Your task to perform on an android device: Search for Italian restaurants on Maps Image 0: 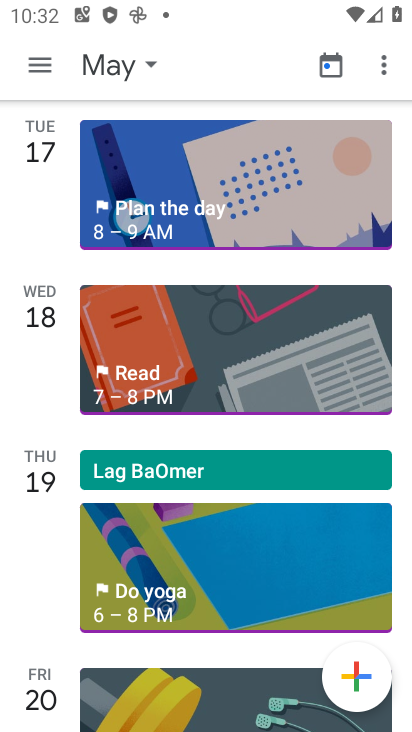
Step 0: press home button
Your task to perform on an android device: Search for Italian restaurants on Maps Image 1: 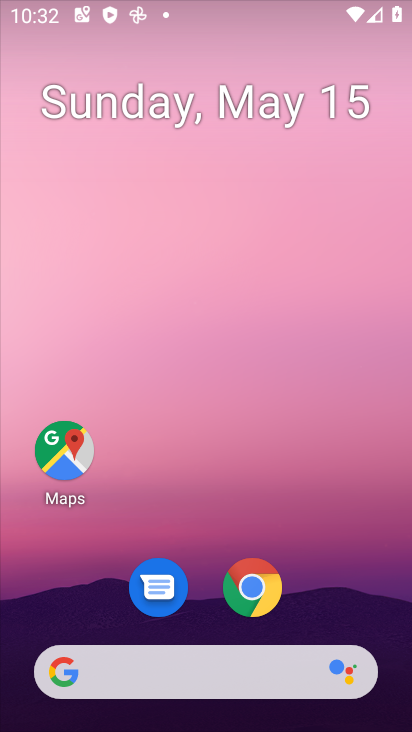
Step 1: drag from (384, 688) to (310, 75)
Your task to perform on an android device: Search for Italian restaurants on Maps Image 2: 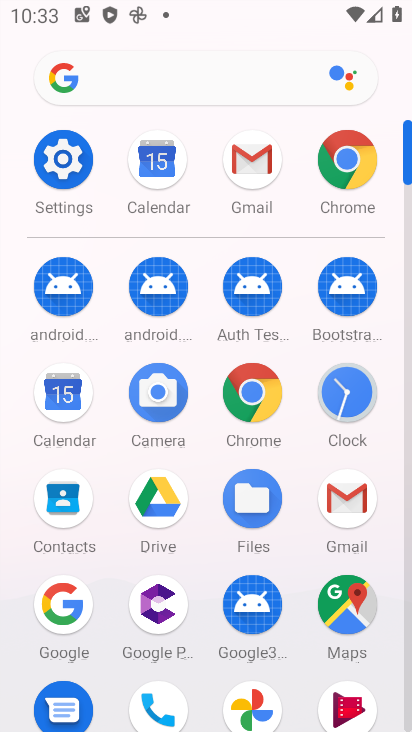
Step 2: click (335, 585)
Your task to perform on an android device: Search for Italian restaurants on Maps Image 3: 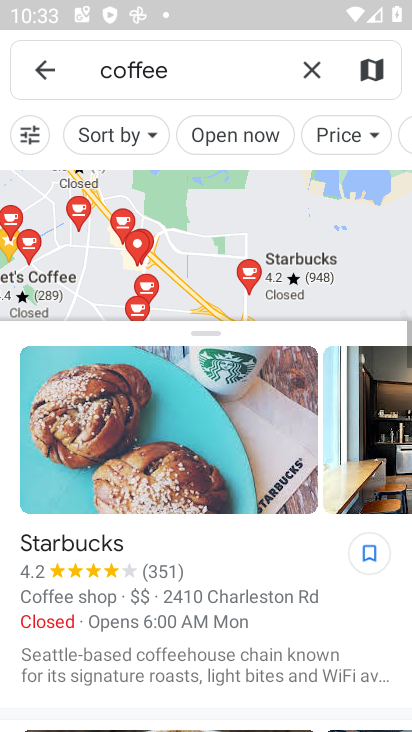
Step 3: click (312, 71)
Your task to perform on an android device: Search for Italian restaurants on Maps Image 4: 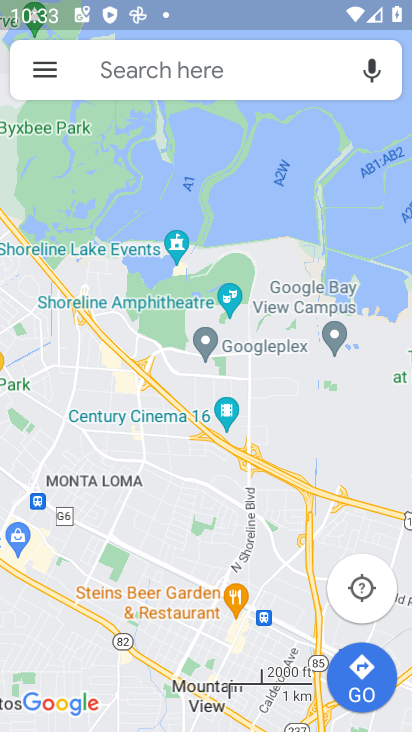
Step 4: click (143, 67)
Your task to perform on an android device: Search for Italian restaurants on Maps Image 5: 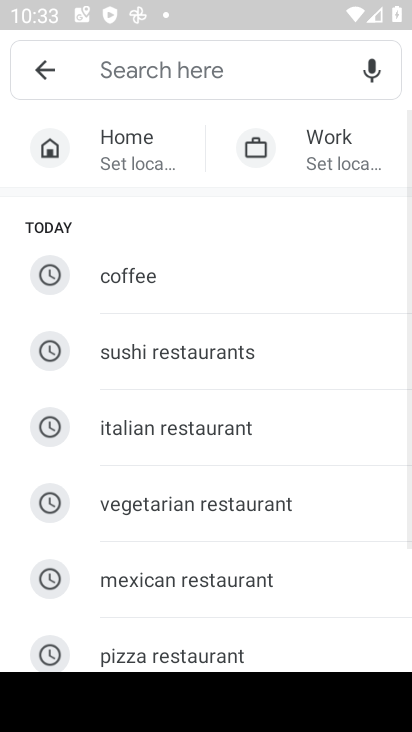
Step 5: click (197, 451)
Your task to perform on an android device: Search for Italian restaurants on Maps Image 6: 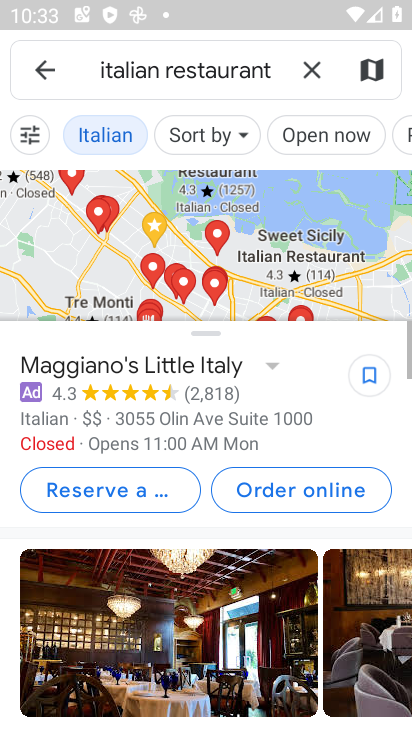
Step 6: task complete